Your task to perform on an android device: Go to Amazon Image 0: 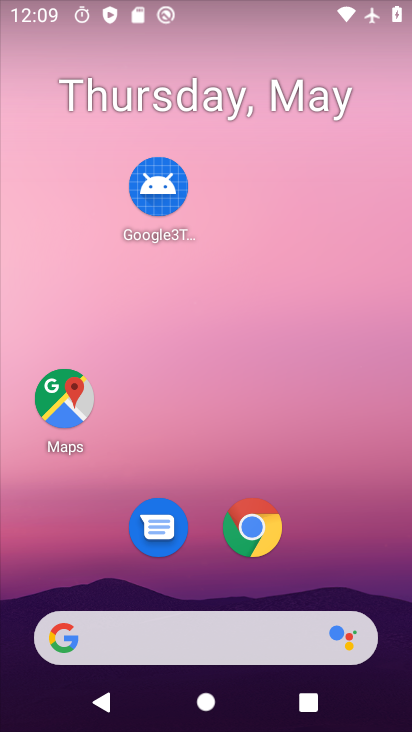
Step 0: click (252, 519)
Your task to perform on an android device: Go to Amazon Image 1: 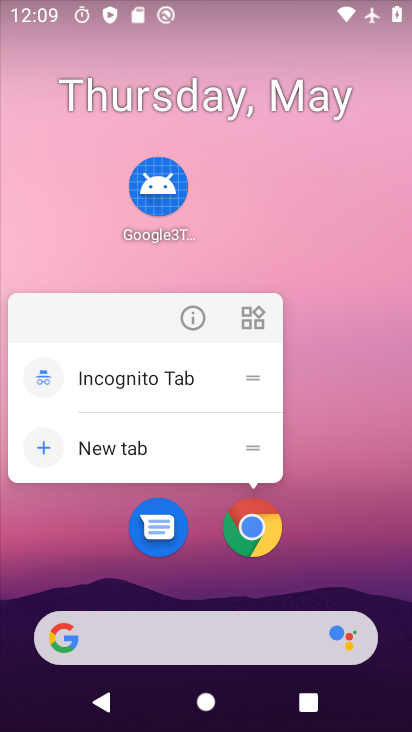
Step 1: click (256, 514)
Your task to perform on an android device: Go to Amazon Image 2: 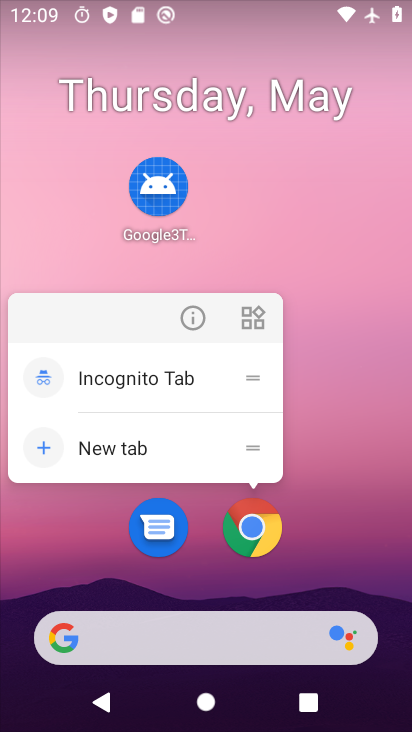
Step 2: click (263, 540)
Your task to perform on an android device: Go to Amazon Image 3: 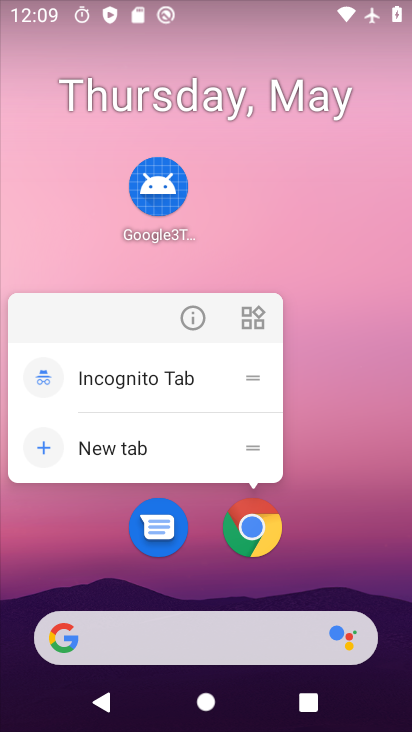
Step 3: click (253, 524)
Your task to perform on an android device: Go to Amazon Image 4: 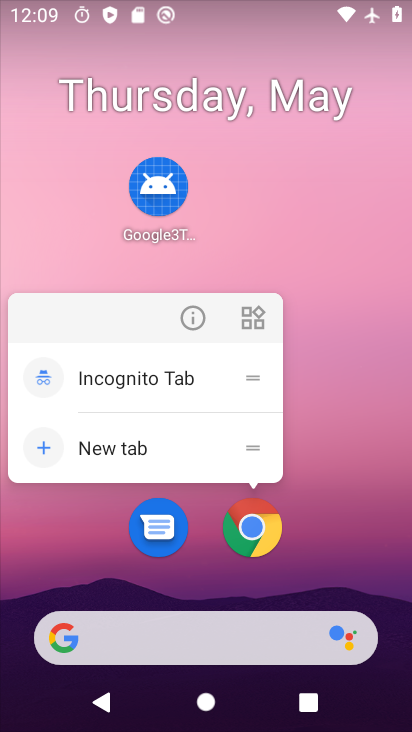
Step 4: click (253, 526)
Your task to perform on an android device: Go to Amazon Image 5: 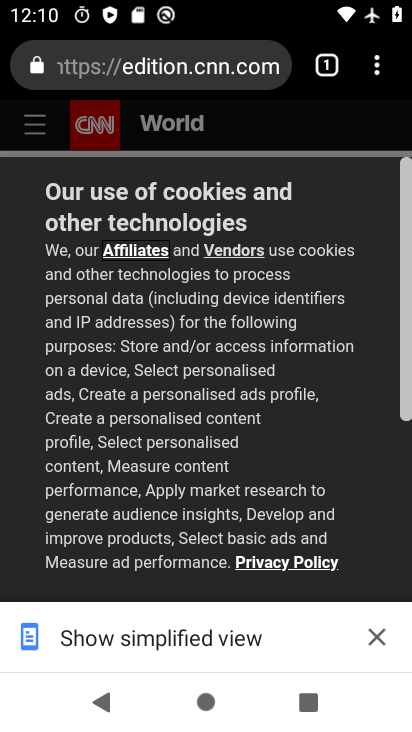
Step 5: drag from (187, 529) to (209, 70)
Your task to perform on an android device: Go to Amazon Image 6: 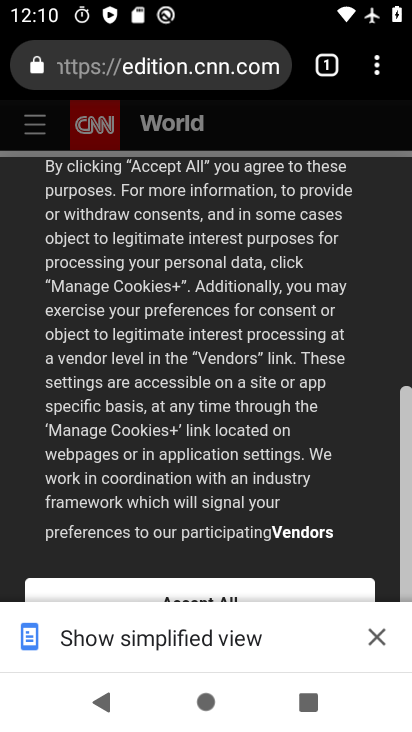
Step 6: click (209, 586)
Your task to perform on an android device: Go to Amazon Image 7: 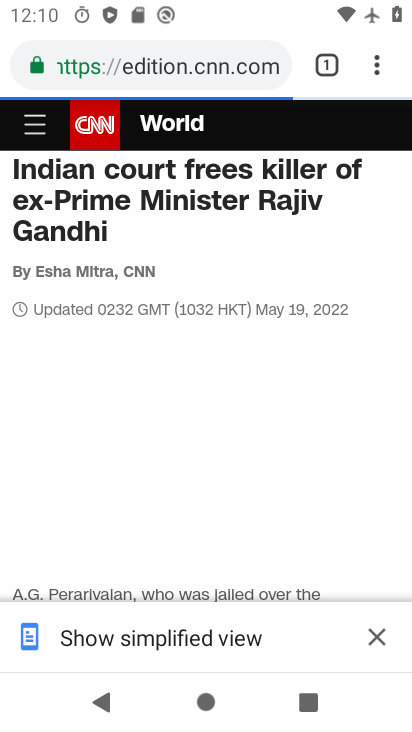
Step 7: click (325, 69)
Your task to perform on an android device: Go to Amazon Image 8: 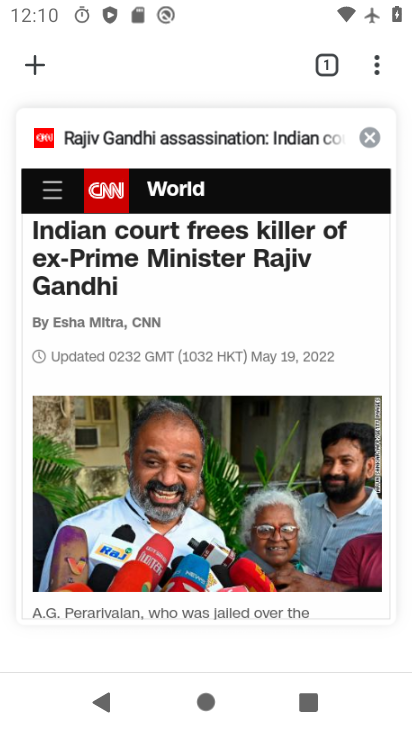
Step 8: click (37, 55)
Your task to perform on an android device: Go to Amazon Image 9: 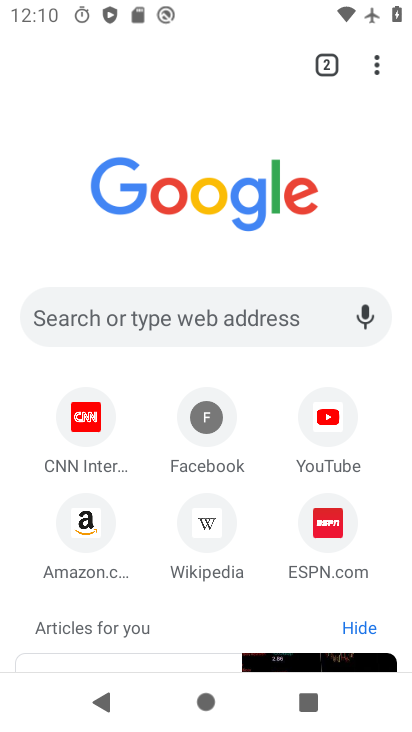
Step 9: click (83, 522)
Your task to perform on an android device: Go to Amazon Image 10: 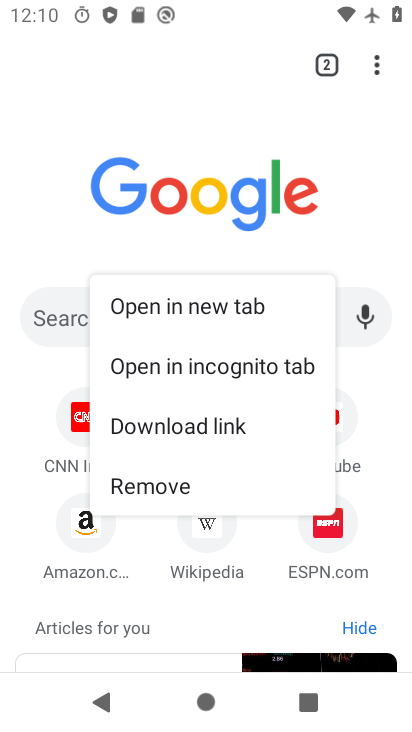
Step 10: click (79, 538)
Your task to perform on an android device: Go to Amazon Image 11: 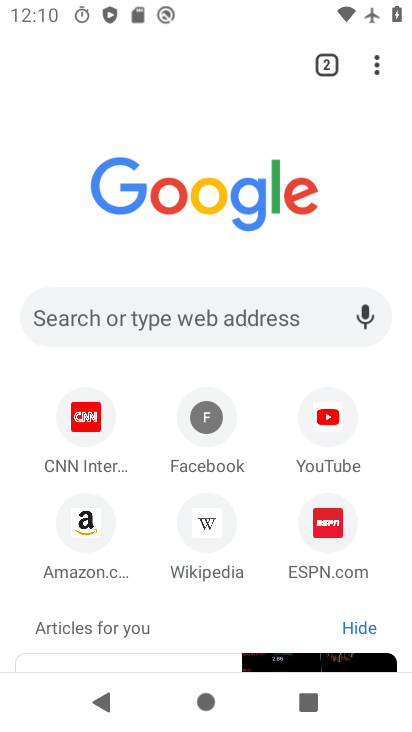
Step 11: click (80, 518)
Your task to perform on an android device: Go to Amazon Image 12: 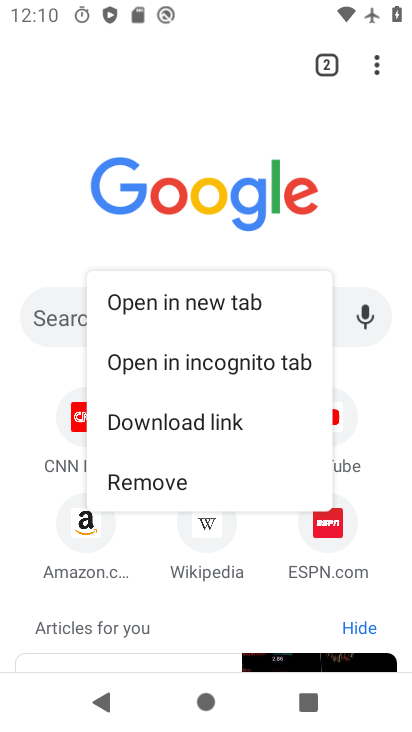
Step 12: click (79, 526)
Your task to perform on an android device: Go to Amazon Image 13: 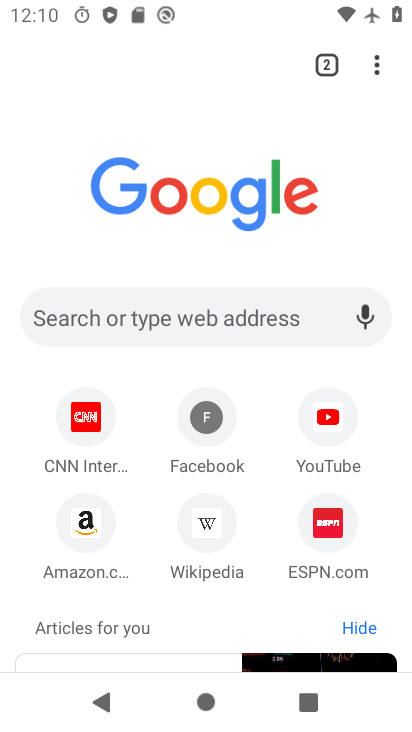
Step 13: click (80, 518)
Your task to perform on an android device: Go to Amazon Image 14: 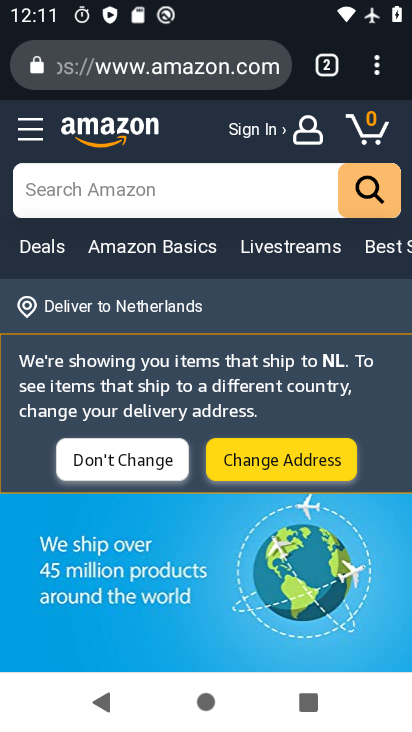
Step 14: task complete